Your task to perform on an android device: find photos in the google photos app Image 0: 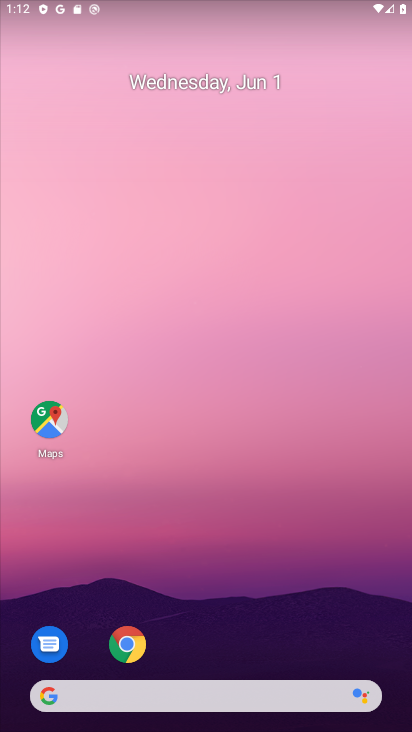
Step 0: press home button
Your task to perform on an android device: find photos in the google photos app Image 1: 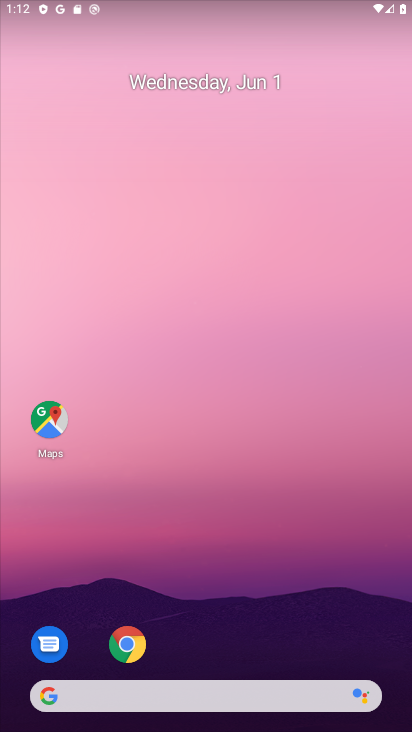
Step 1: drag from (168, 692) to (343, 118)
Your task to perform on an android device: find photos in the google photos app Image 2: 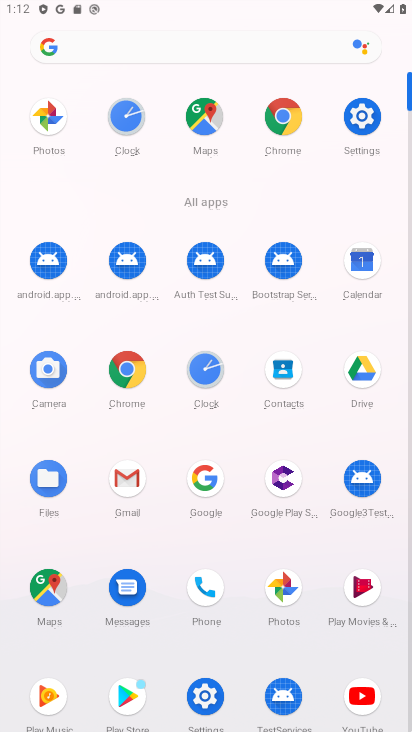
Step 2: click (283, 599)
Your task to perform on an android device: find photos in the google photos app Image 3: 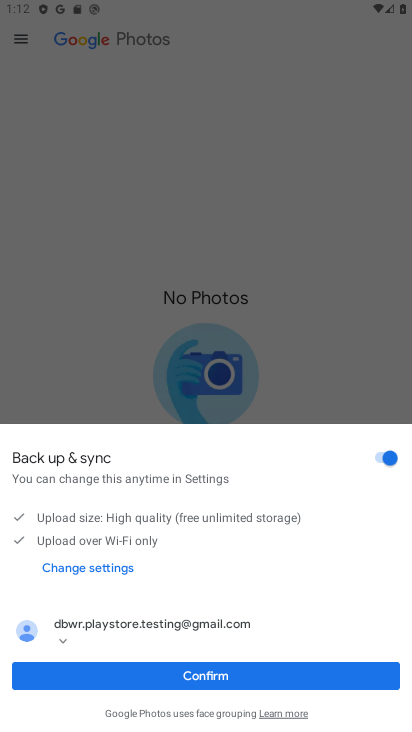
Step 3: click (205, 679)
Your task to perform on an android device: find photos in the google photos app Image 4: 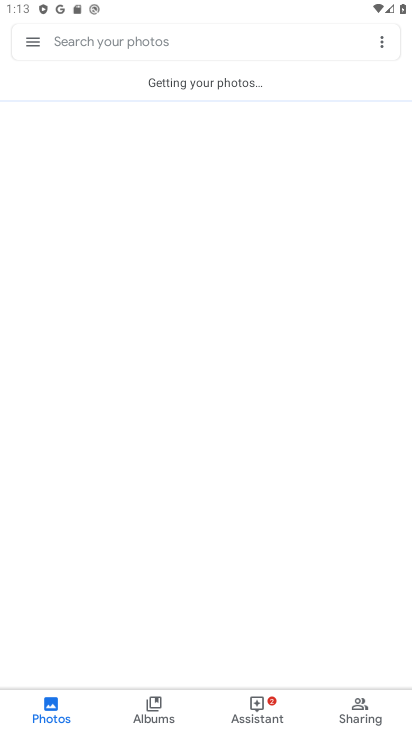
Step 4: click (25, 39)
Your task to perform on an android device: find photos in the google photos app Image 5: 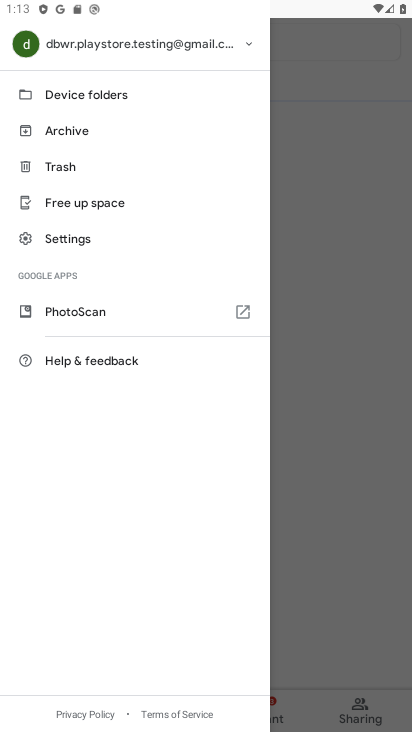
Step 5: click (308, 119)
Your task to perform on an android device: find photos in the google photos app Image 6: 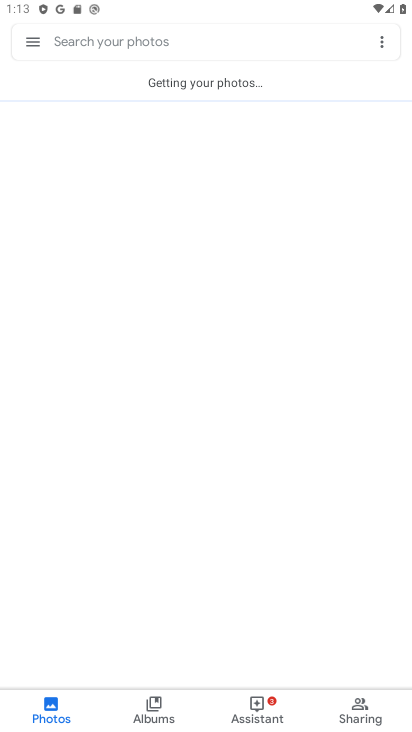
Step 6: task complete